Your task to perform on an android device: Open calendar and show me the second week of next month Image 0: 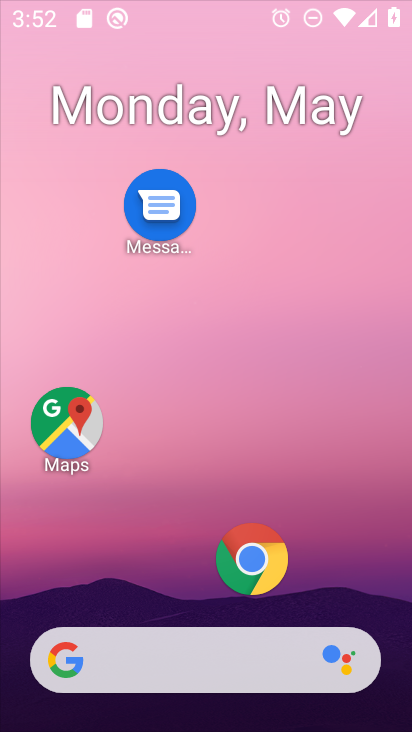
Step 0: drag from (304, 123) to (306, 51)
Your task to perform on an android device: Open calendar and show me the second week of next month Image 1: 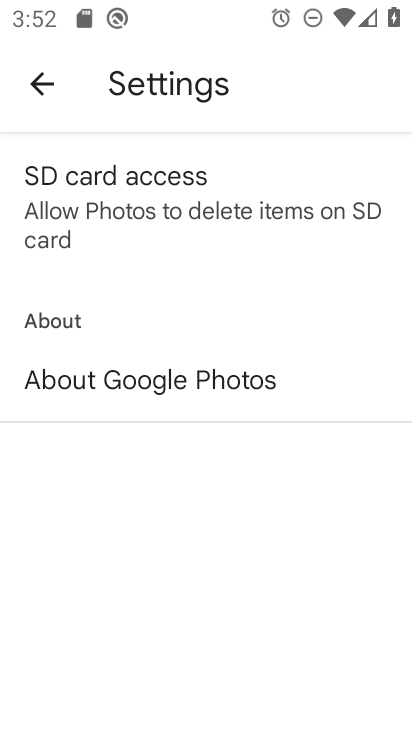
Step 1: press home button
Your task to perform on an android device: Open calendar and show me the second week of next month Image 2: 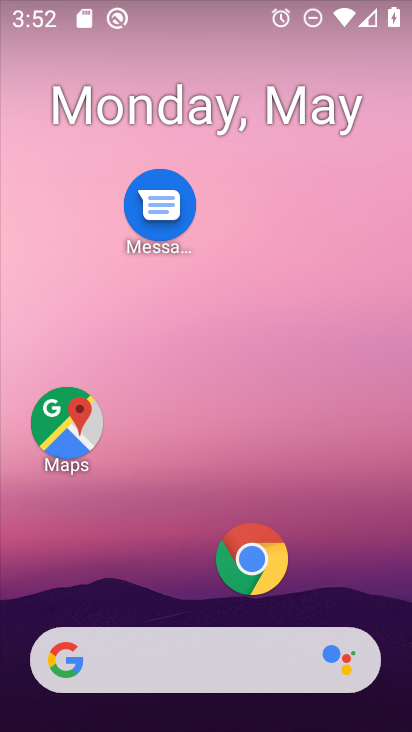
Step 2: drag from (198, 566) to (263, 130)
Your task to perform on an android device: Open calendar and show me the second week of next month Image 3: 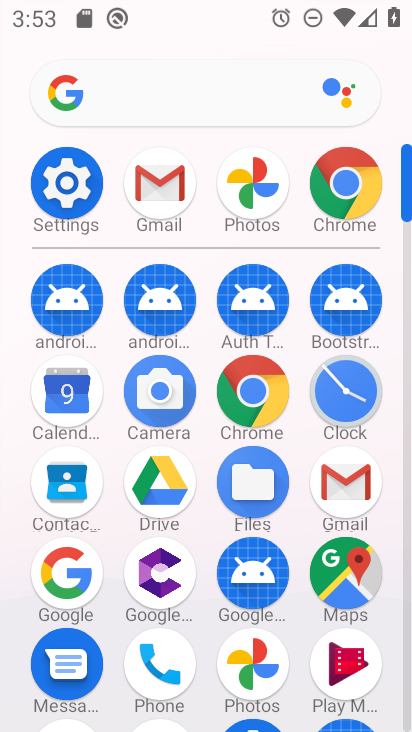
Step 3: drag from (209, 650) to (201, 160)
Your task to perform on an android device: Open calendar and show me the second week of next month Image 4: 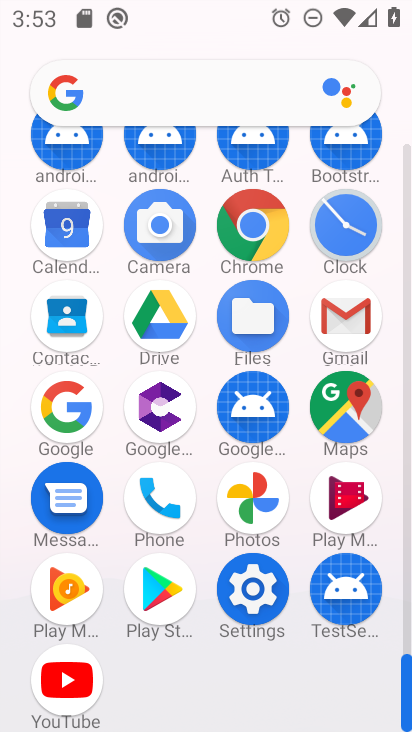
Step 4: click (62, 246)
Your task to perform on an android device: Open calendar and show me the second week of next month Image 5: 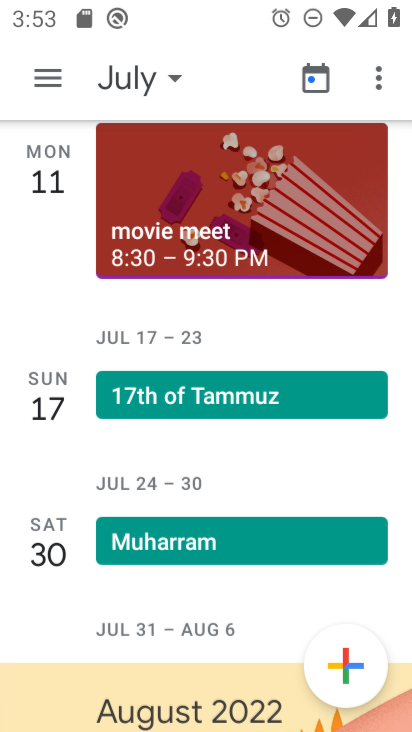
Step 5: click (65, 238)
Your task to perform on an android device: Open calendar and show me the second week of next month Image 6: 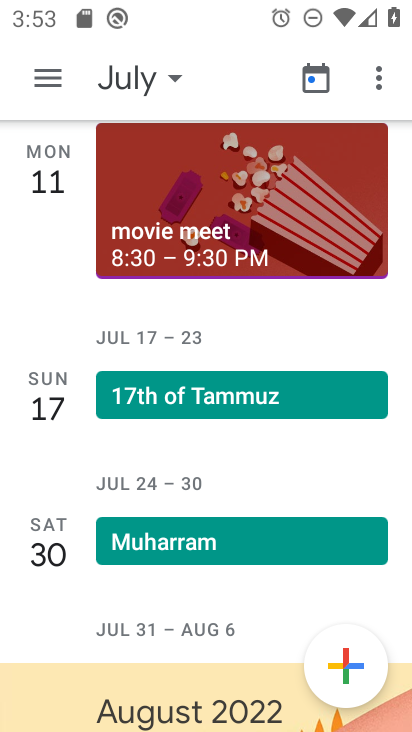
Step 6: click (77, 234)
Your task to perform on an android device: Open calendar and show me the second week of next month Image 7: 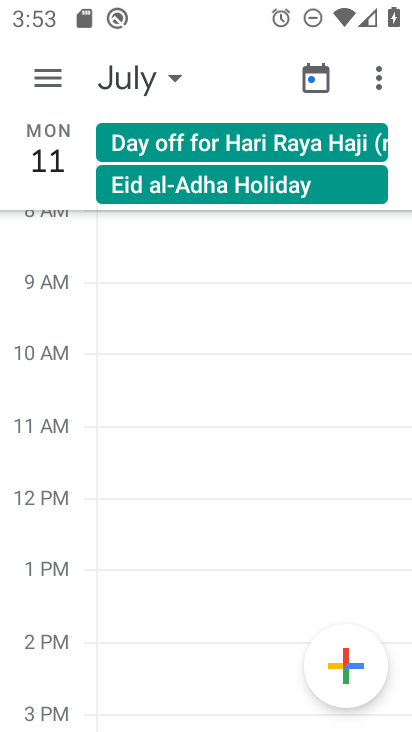
Step 7: drag from (272, 528) to (321, 245)
Your task to perform on an android device: Open calendar and show me the second week of next month Image 8: 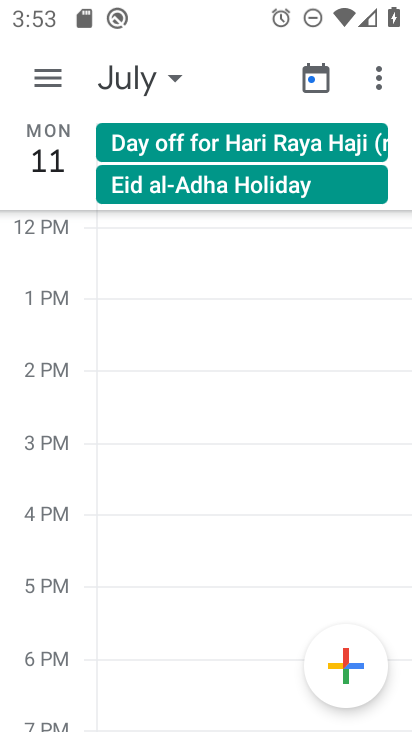
Step 8: drag from (261, 633) to (294, 154)
Your task to perform on an android device: Open calendar and show me the second week of next month Image 9: 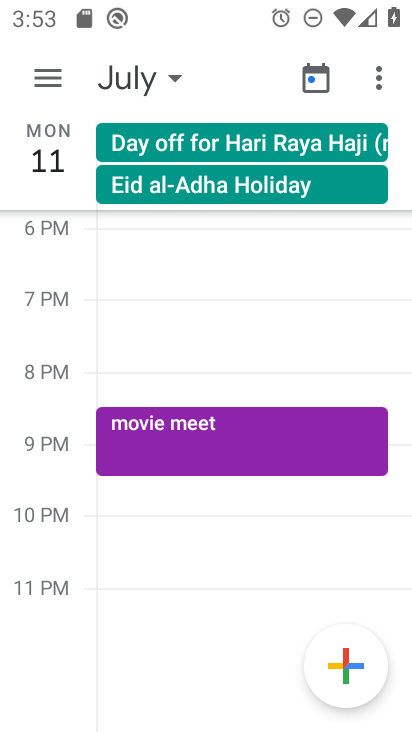
Step 9: drag from (222, 625) to (292, 272)
Your task to perform on an android device: Open calendar and show me the second week of next month Image 10: 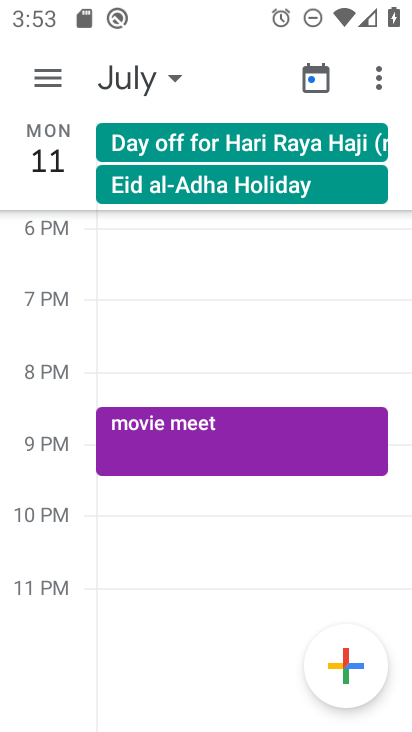
Step 10: click (153, 69)
Your task to perform on an android device: Open calendar and show me the second week of next month Image 11: 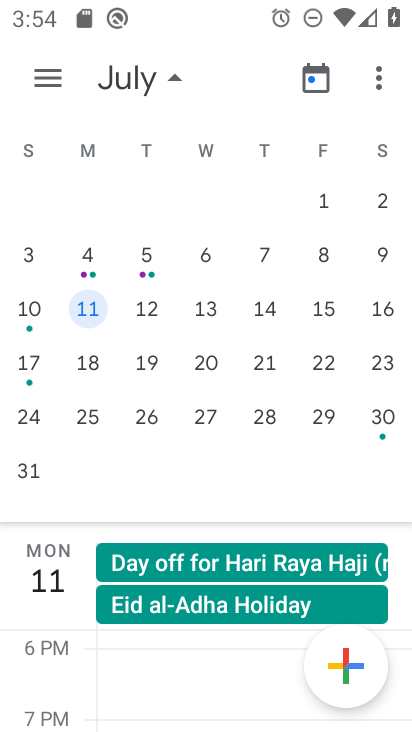
Step 11: drag from (188, 516) to (233, 244)
Your task to perform on an android device: Open calendar and show me the second week of next month Image 12: 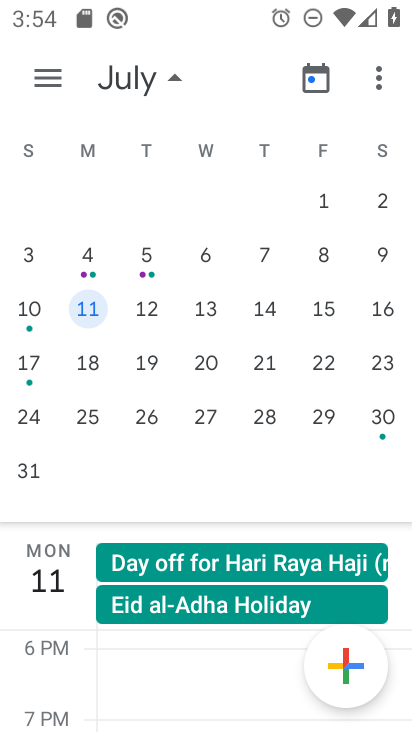
Step 12: click (130, 63)
Your task to perform on an android device: Open calendar and show me the second week of next month Image 13: 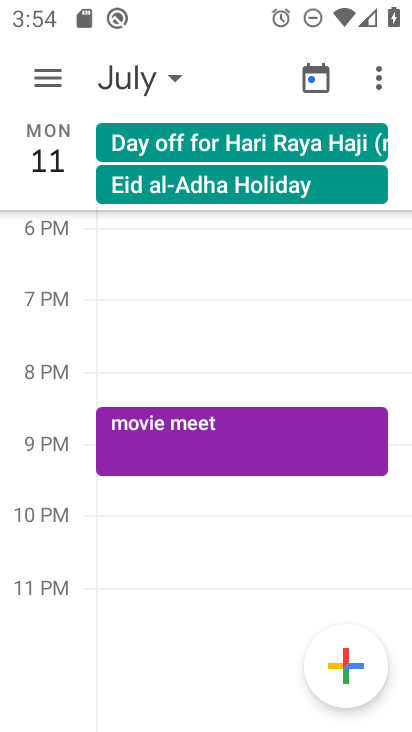
Step 13: click (131, 78)
Your task to perform on an android device: Open calendar and show me the second week of next month Image 14: 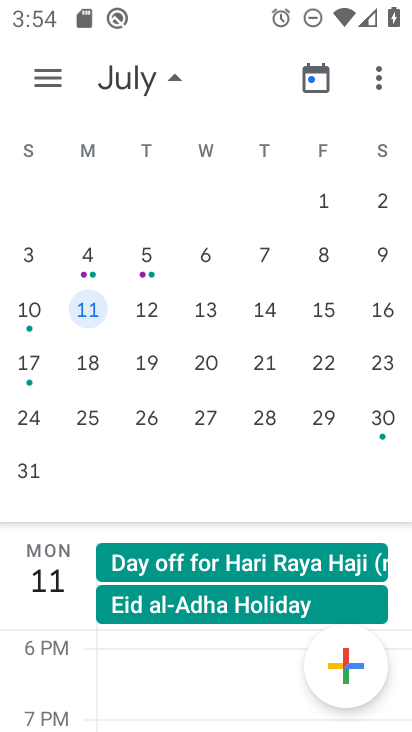
Step 14: drag from (51, 286) to (405, 306)
Your task to perform on an android device: Open calendar and show me the second week of next month Image 15: 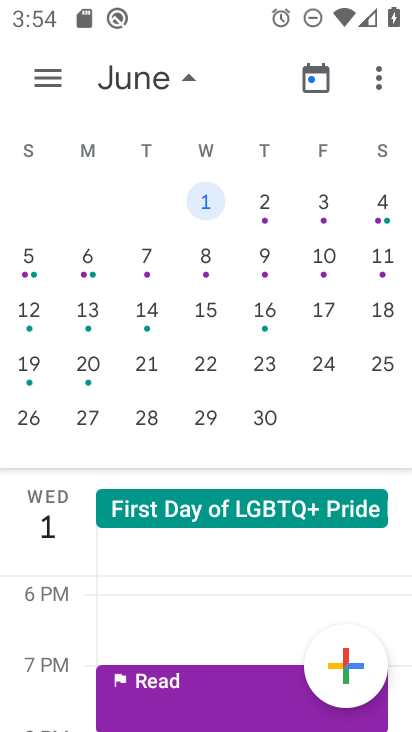
Step 15: click (207, 255)
Your task to perform on an android device: Open calendar and show me the second week of next month Image 16: 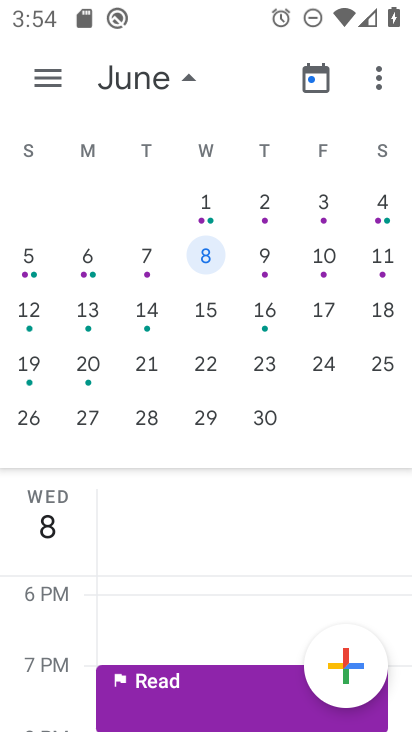
Step 16: task complete